Your task to perform on an android device: Turn off the flashlight Image 0: 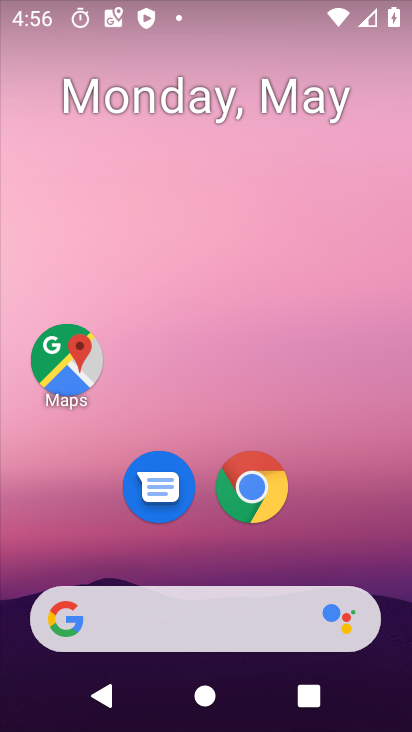
Step 0: drag from (251, 13) to (248, 548)
Your task to perform on an android device: Turn off the flashlight Image 1: 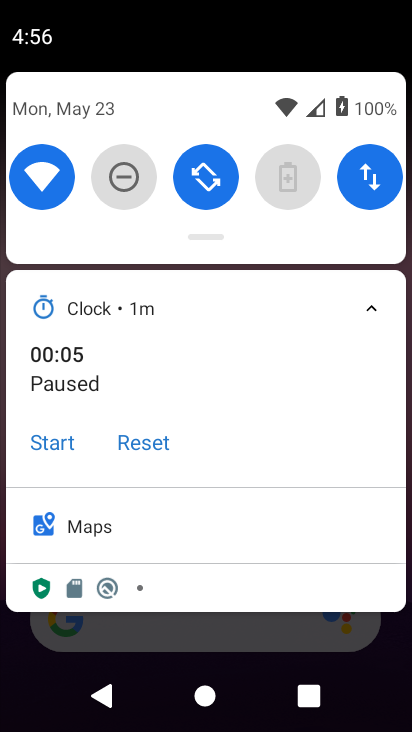
Step 1: drag from (295, 256) to (230, 598)
Your task to perform on an android device: Turn off the flashlight Image 2: 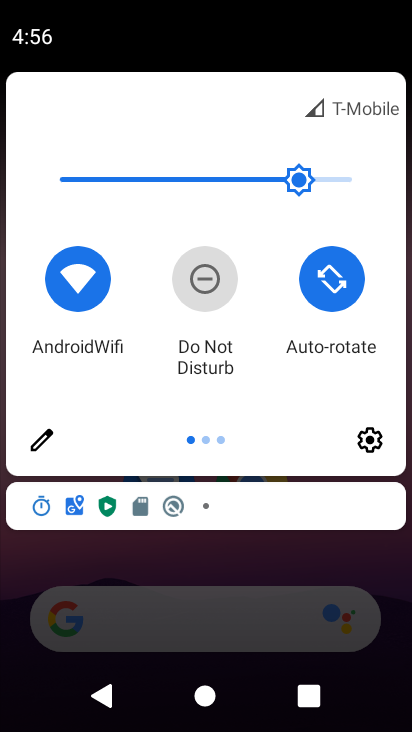
Step 2: click (50, 444)
Your task to perform on an android device: Turn off the flashlight Image 3: 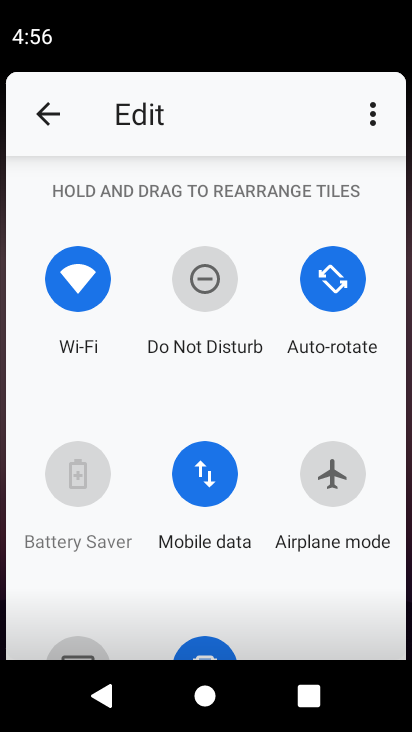
Step 3: task complete